Your task to perform on an android device: Check the settings for the Google Play Movies app Image 0: 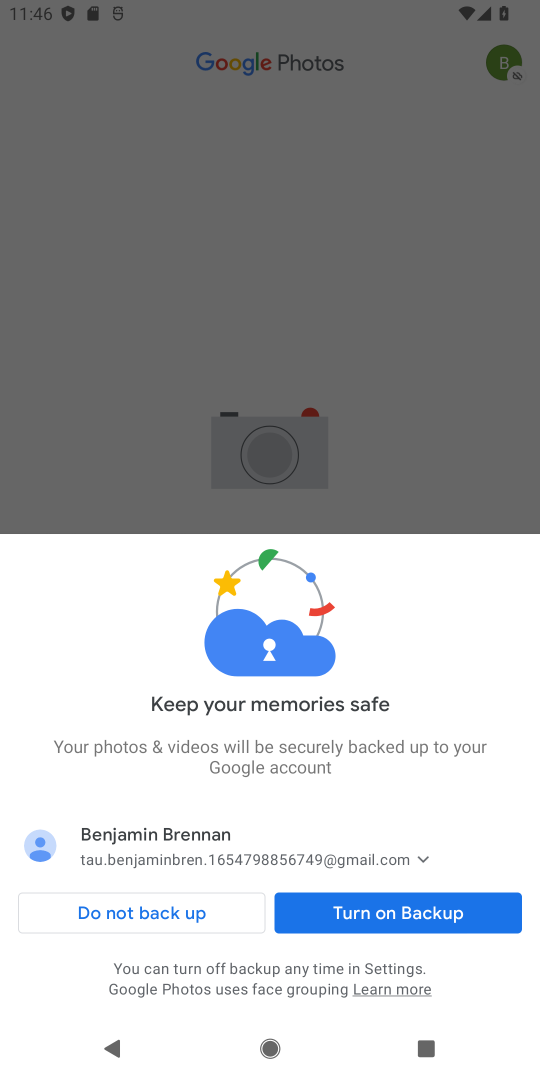
Step 0: press home button
Your task to perform on an android device: Check the settings for the Google Play Movies app Image 1: 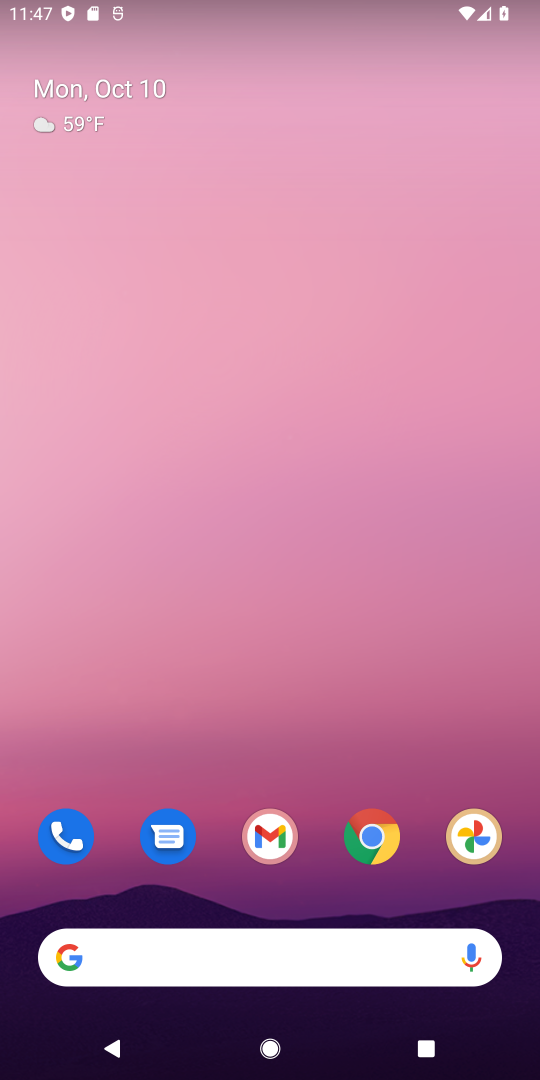
Step 1: task complete